Your task to perform on an android device: Open Chrome and go to the settings page Image 0: 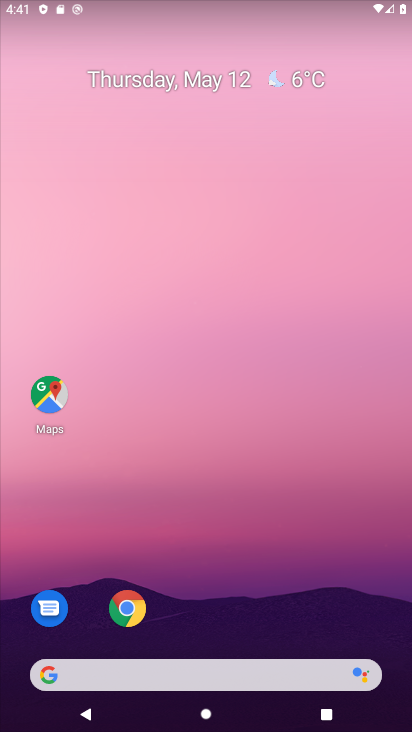
Step 0: click (113, 602)
Your task to perform on an android device: Open Chrome and go to the settings page Image 1: 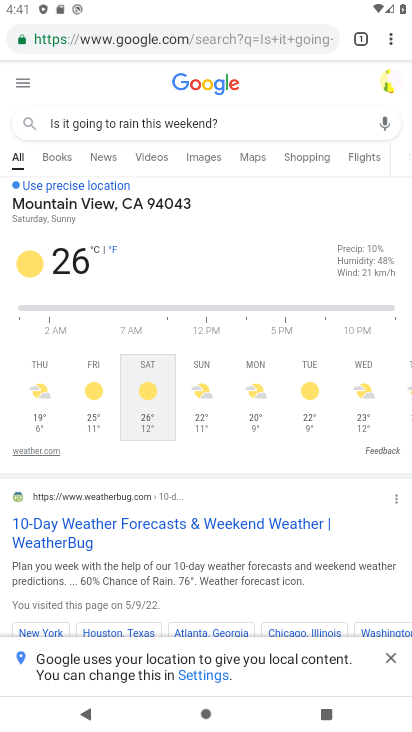
Step 1: task complete